Your task to perform on an android device: Open Google Chrome Image 0: 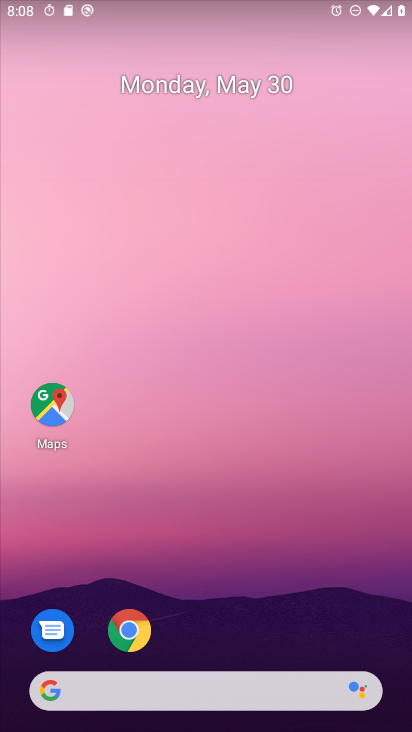
Step 0: drag from (348, 633) to (232, 210)
Your task to perform on an android device: Open Google Chrome Image 1: 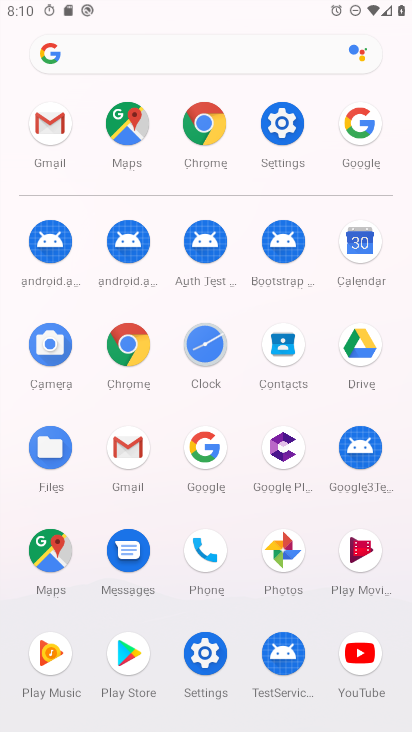
Step 1: click (131, 345)
Your task to perform on an android device: Open Google Chrome Image 2: 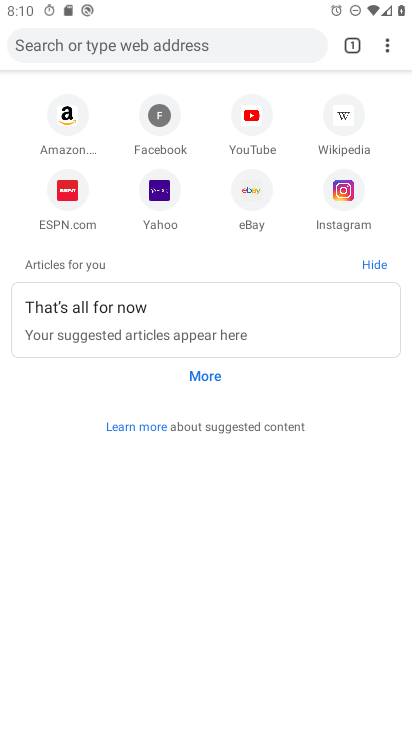
Step 2: task complete